Your task to perform on an android device: toggle pop-ups in chrome Image 0: 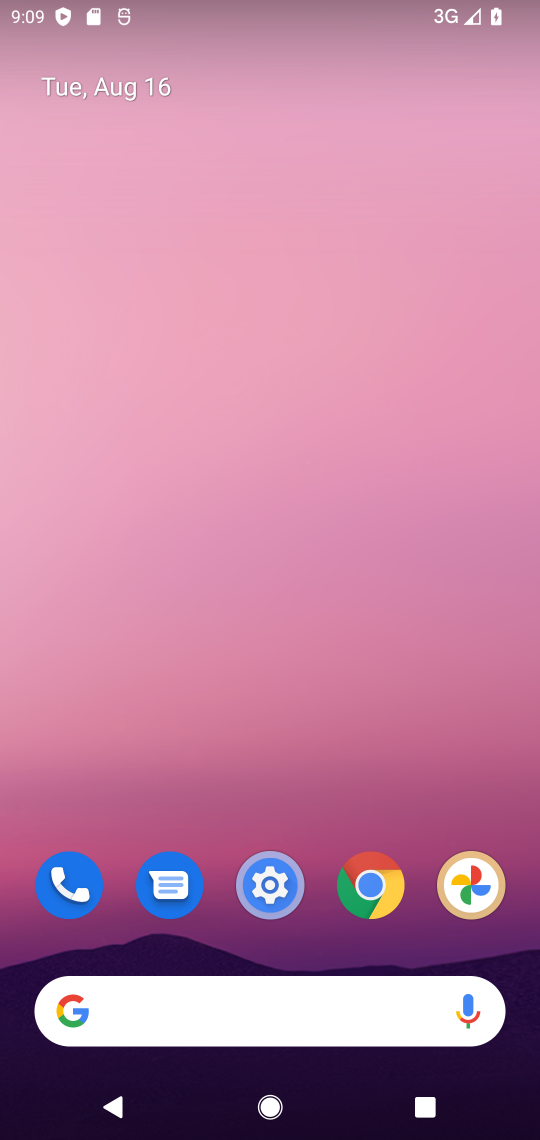
Step 0: click (379, 898)
Your task to perform on an android device: toggle pop-ups in chrome Image 1: 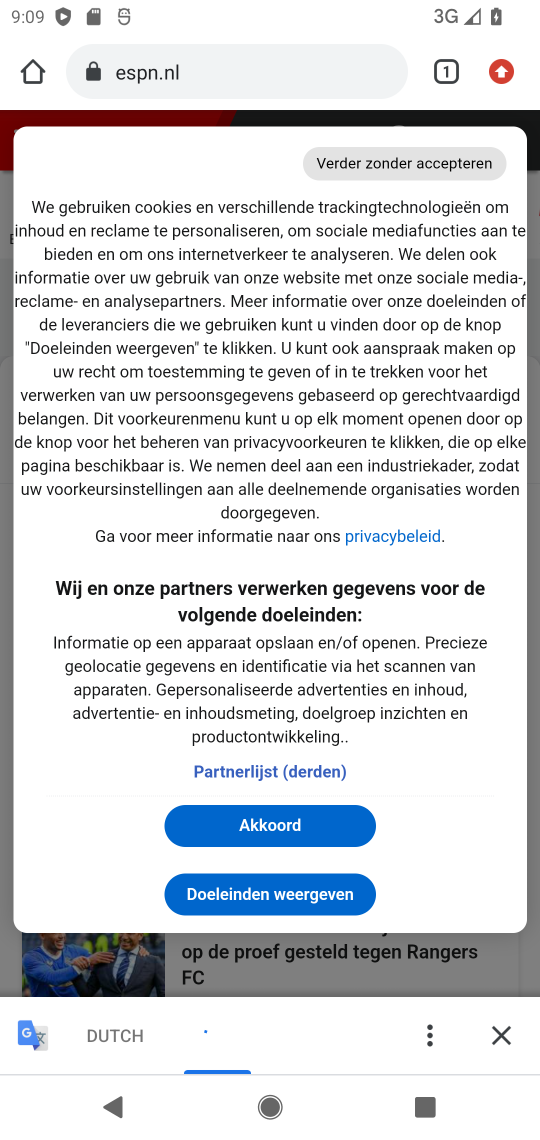
Step 1: click (501, 74)
Your task to perform on an android device: toggle pop-ups in chrome Image 2: 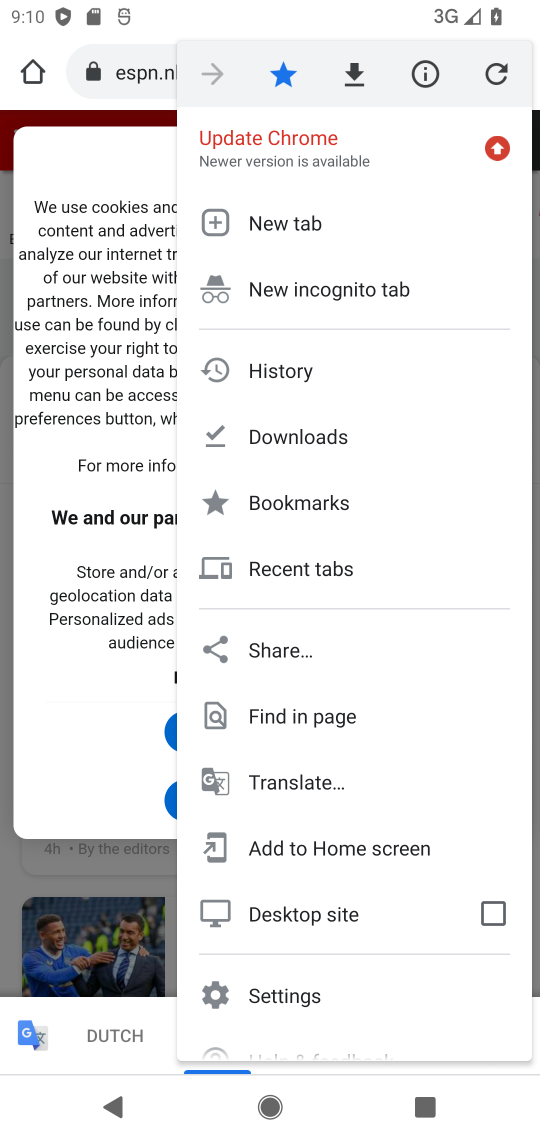
Step 2: click (284, 992)
Your task to perform on an android device: toggle pop-ups in chrome Image 3: 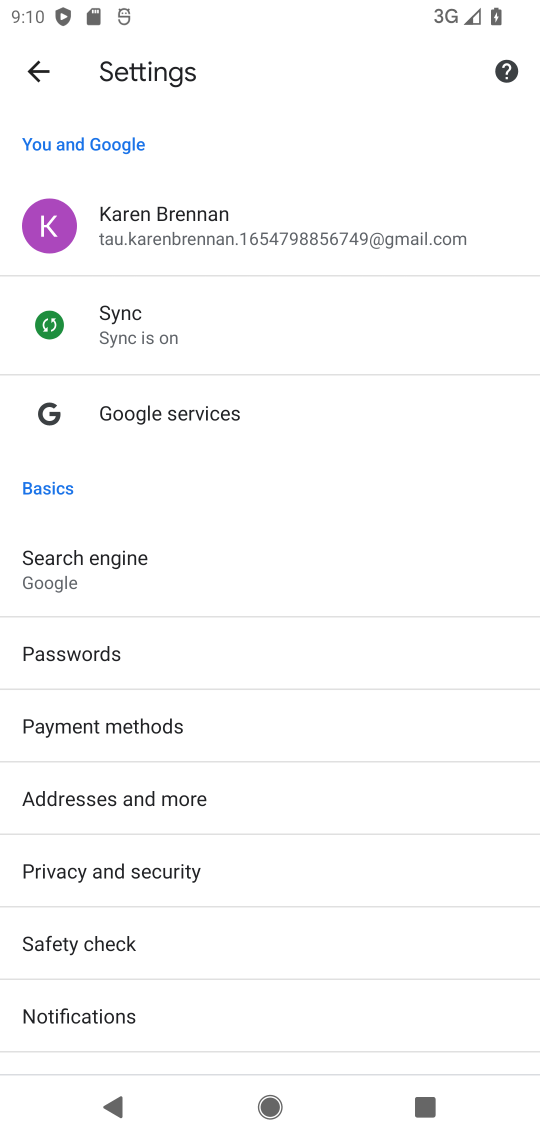
Step 3: click (236, 185)
Your task to perform on an android device: toggle pop-ups in chrome Image 4: 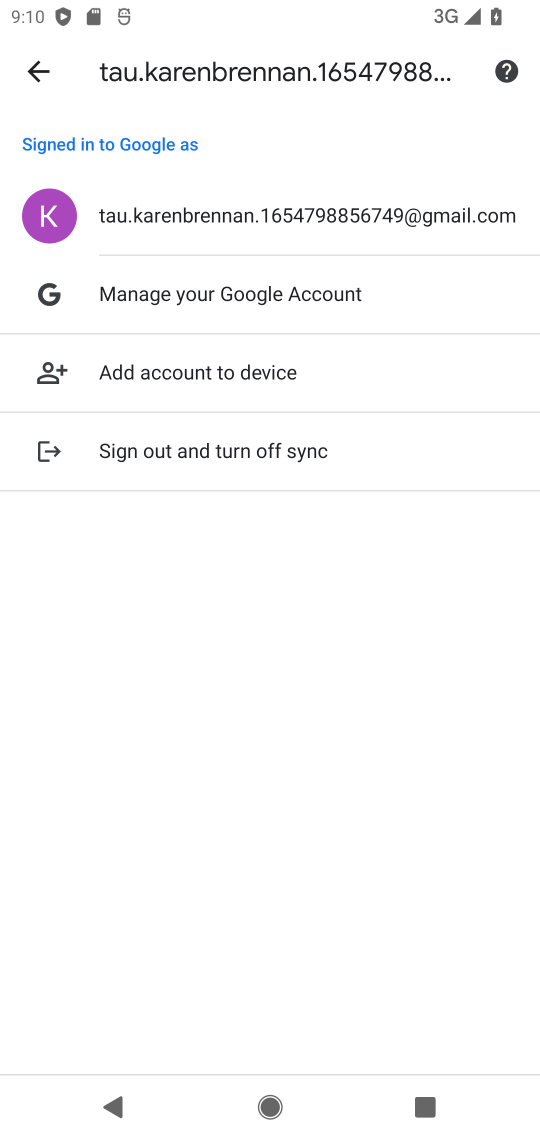
Step 4: click (33, 76)
Your task to perform on an android device: toggle pop-ups in chrome Image 5: 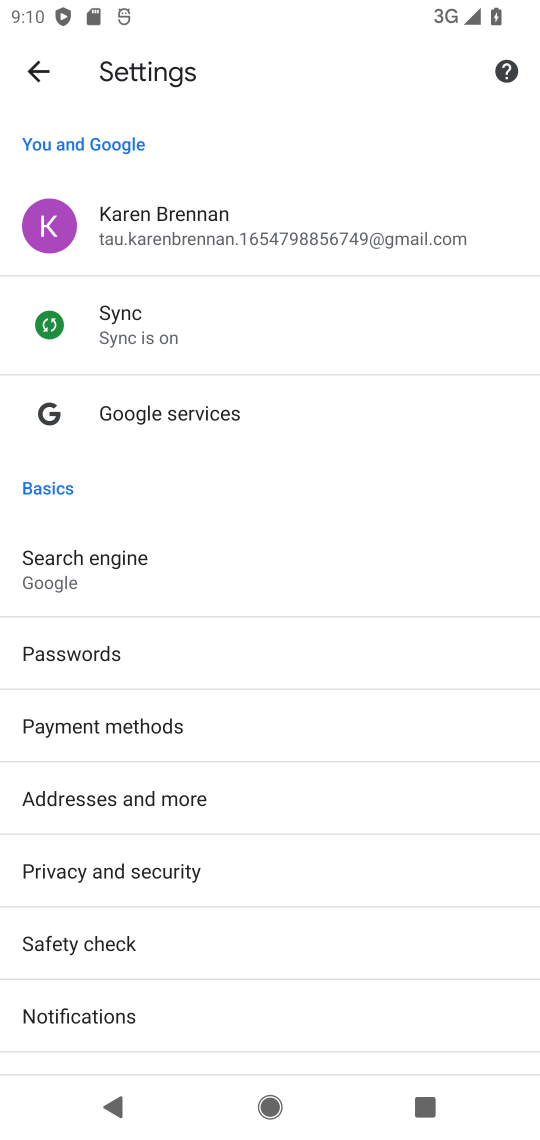
Step 5: click (91, 958)
Your task to perform on an android device: toggle pop-ups in chrome Image 6: 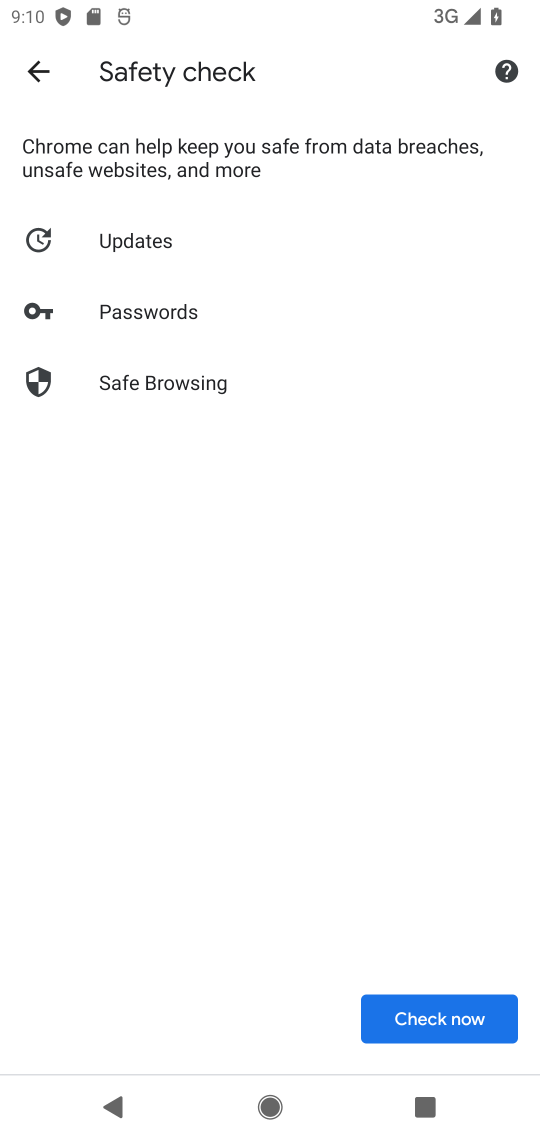
Step 6: click (43, 70)
Your task to perform on an android device: toggle pop-ups in chrome Image 7: 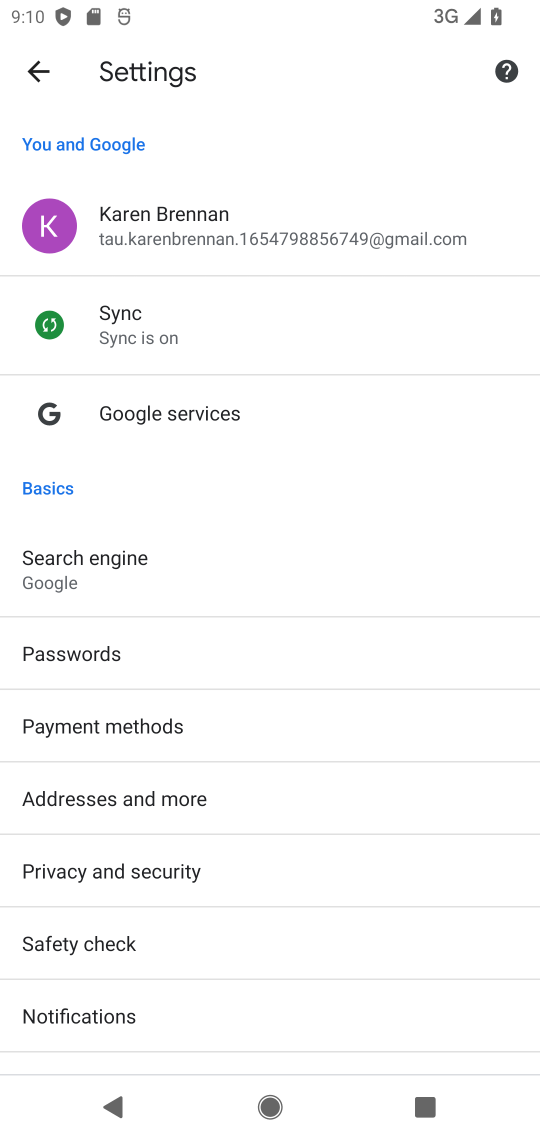
Step 7: drag from (112, 806) to (168, 380)
Your task to perform on an android device: toggle pop-ups in chrome Image 8: 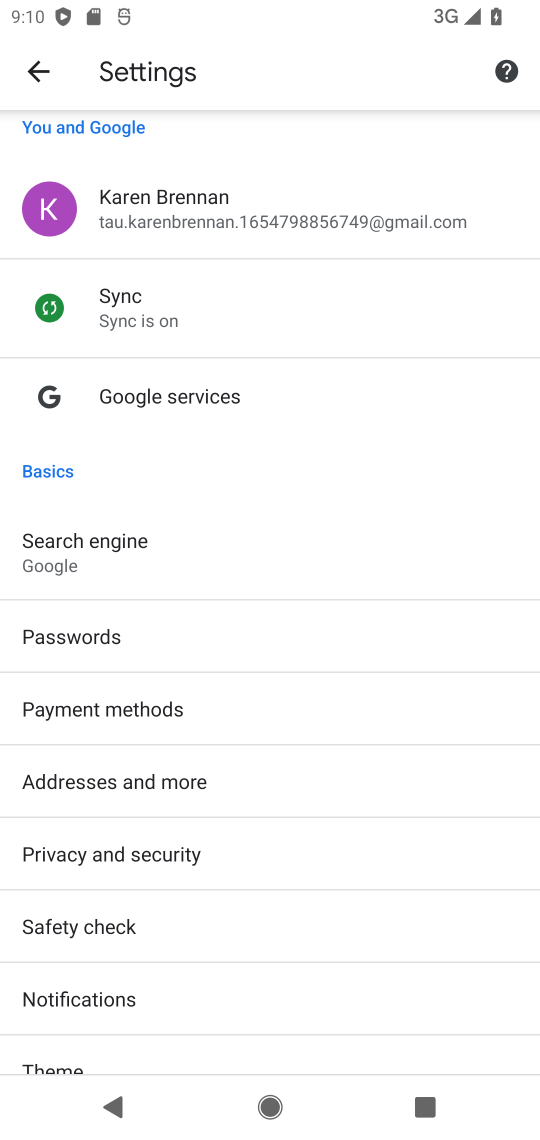
Step 8: drag from (97, 902) to (98, 269)
Your task to perform on an android device: toggle pop-ups in chrome Image 9: 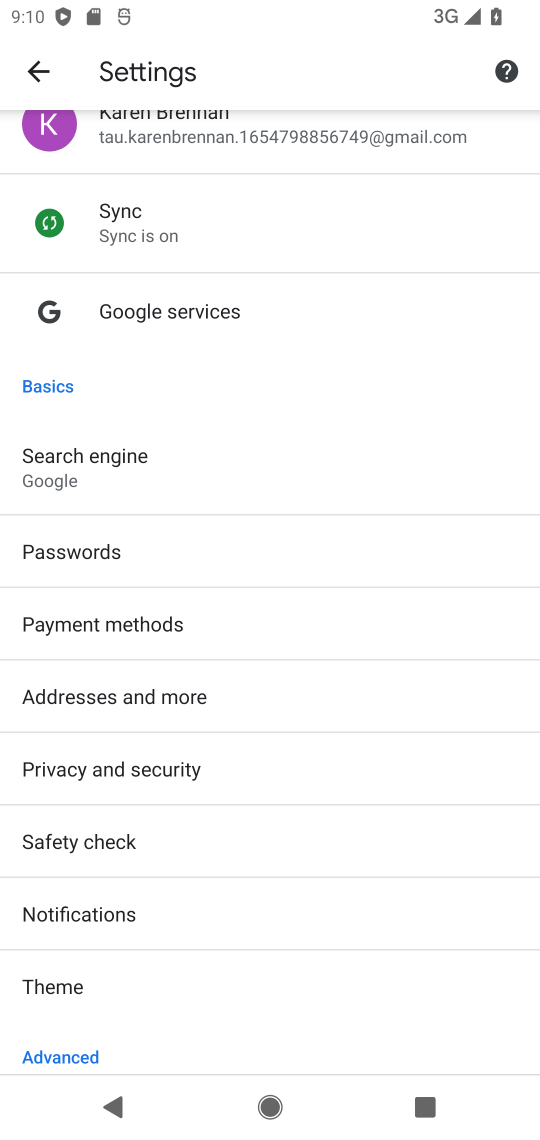
Step 9: drag from (111, 1035) to (194, 209)
Your task to perform on an android device: toggle pop-ups in chrome Image 10: 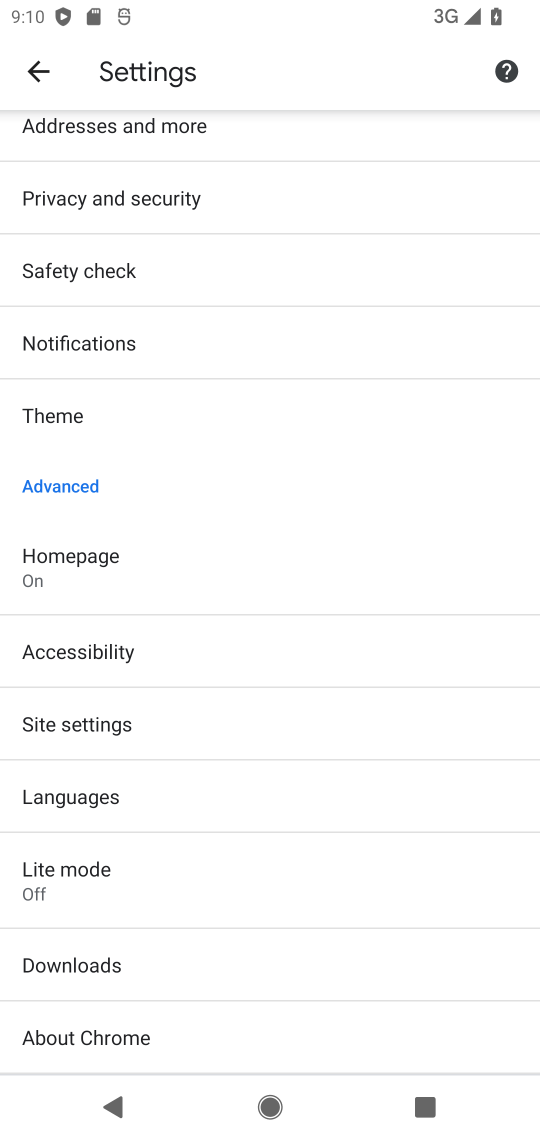
Step 10: click (93, 719)
Your task to perform on an android device: toggle pop-ups in chrome Image 11: 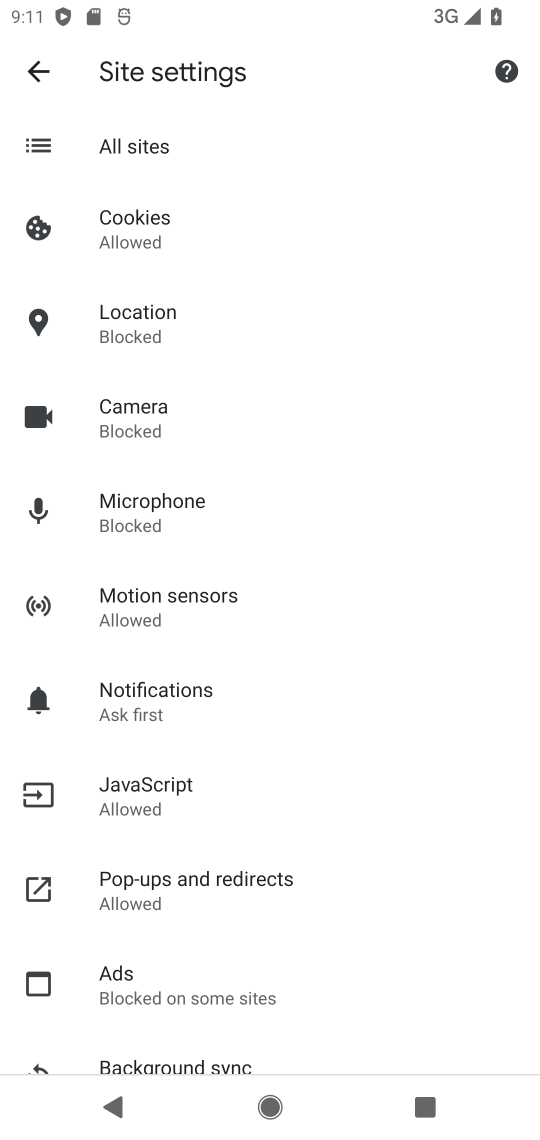
Step 11: click (141, 890)
Your task to perform on an android device: toggle pop-ups in chrome Image 12: 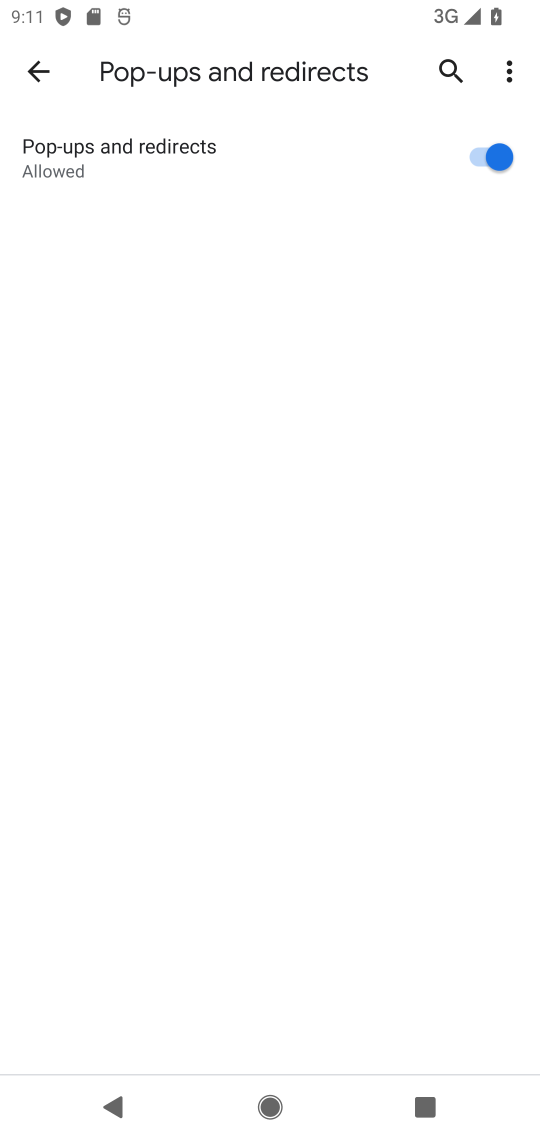
Step 12: click (465, 170)
Your task to perform on an android device: toggle pop-ups in chrome Image 13: 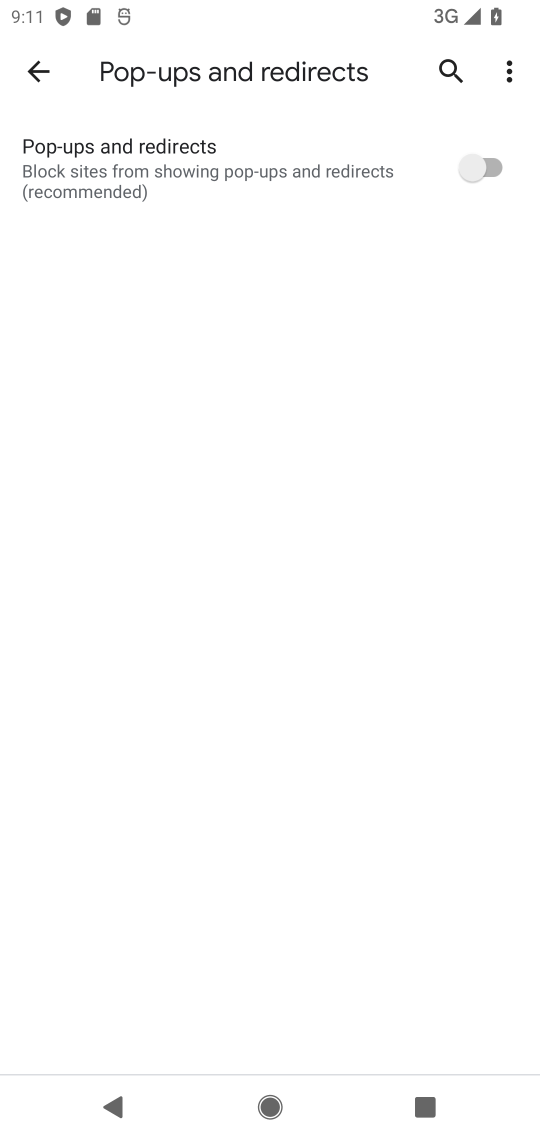
Step 13: task complete